Your task to perform on an android device: Add asus zenbook to the cart on bestbuy, then select checkout. Image 0: 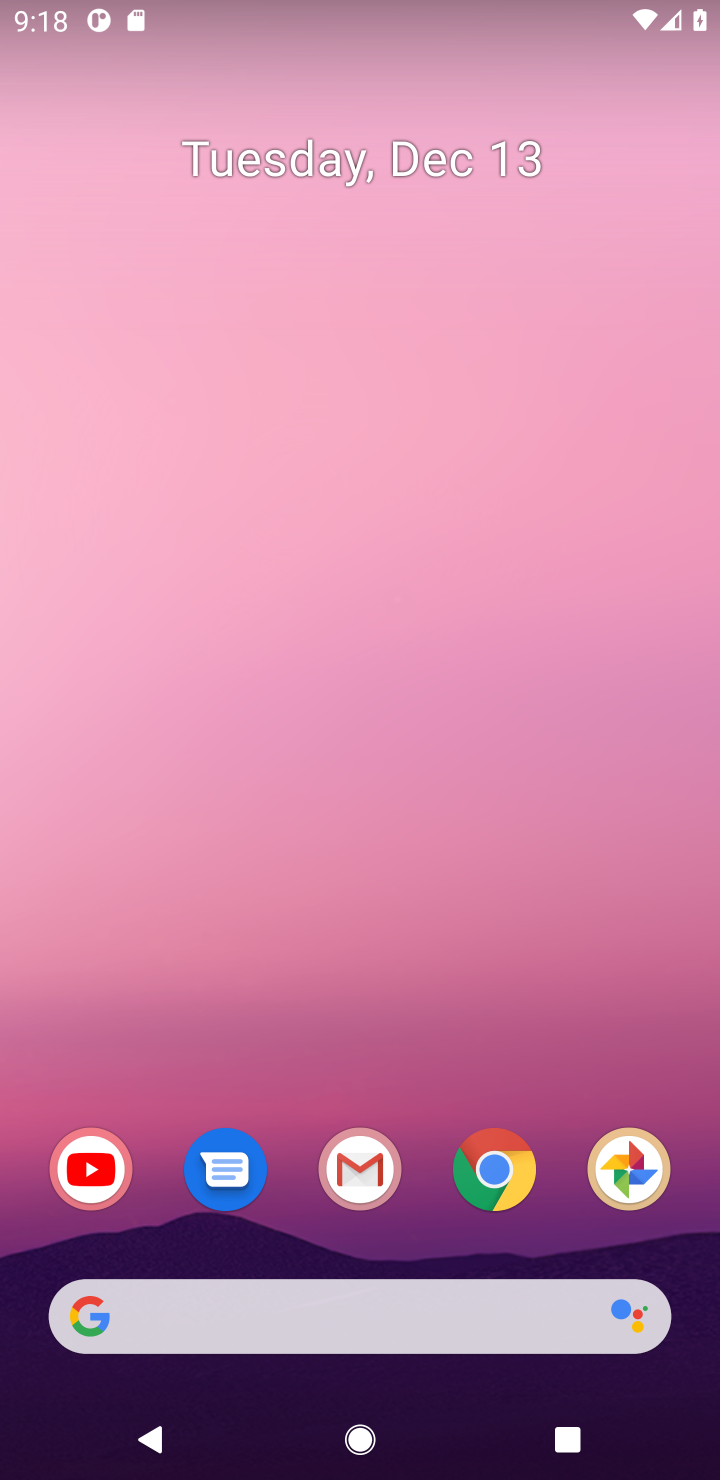
Step 0: click (487, 1196)
Your task to perform on an android device: Add asus zenbook to the cart on bestbuy, then select checkout. Image 1: 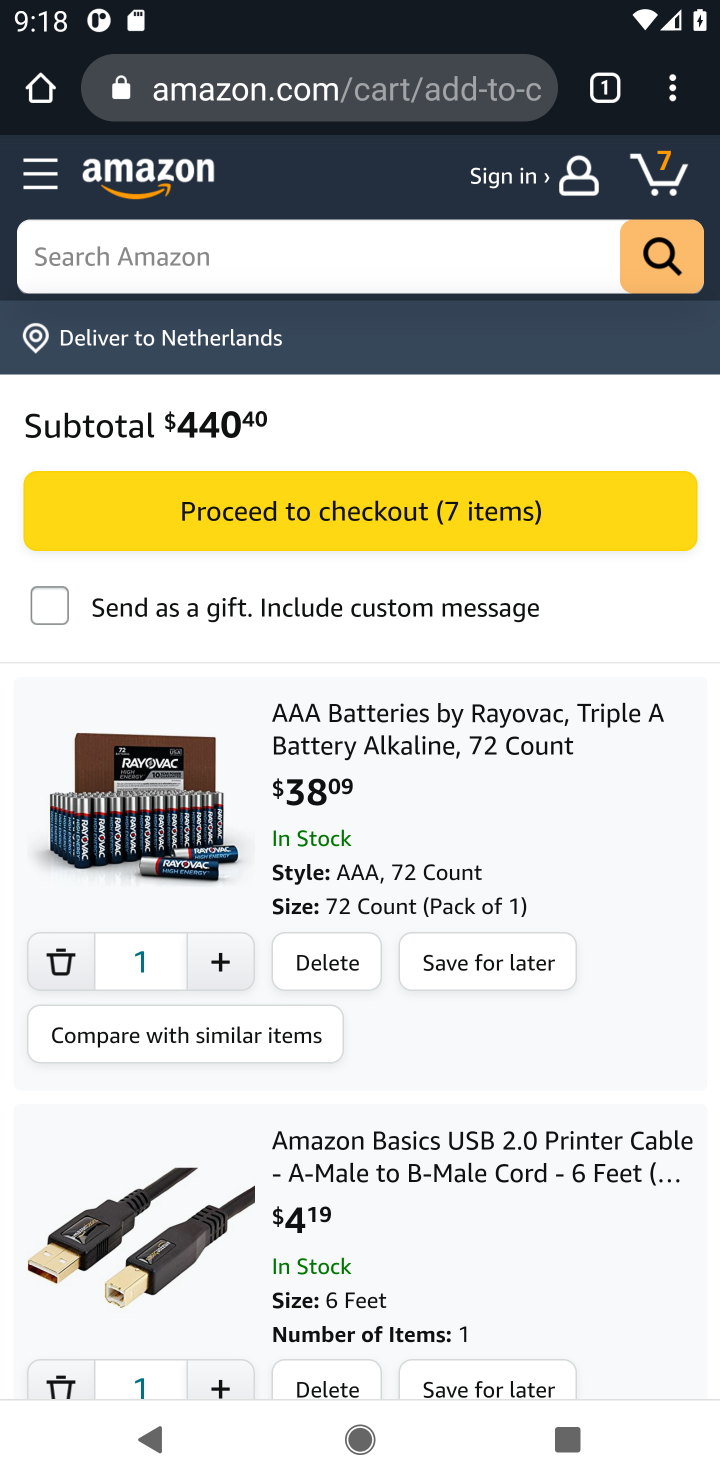
Step 1: click (260, 106)
Your task to perform on an android device: Add asus zenbook to the cart on bestbuy, then select checkout. Image 2: 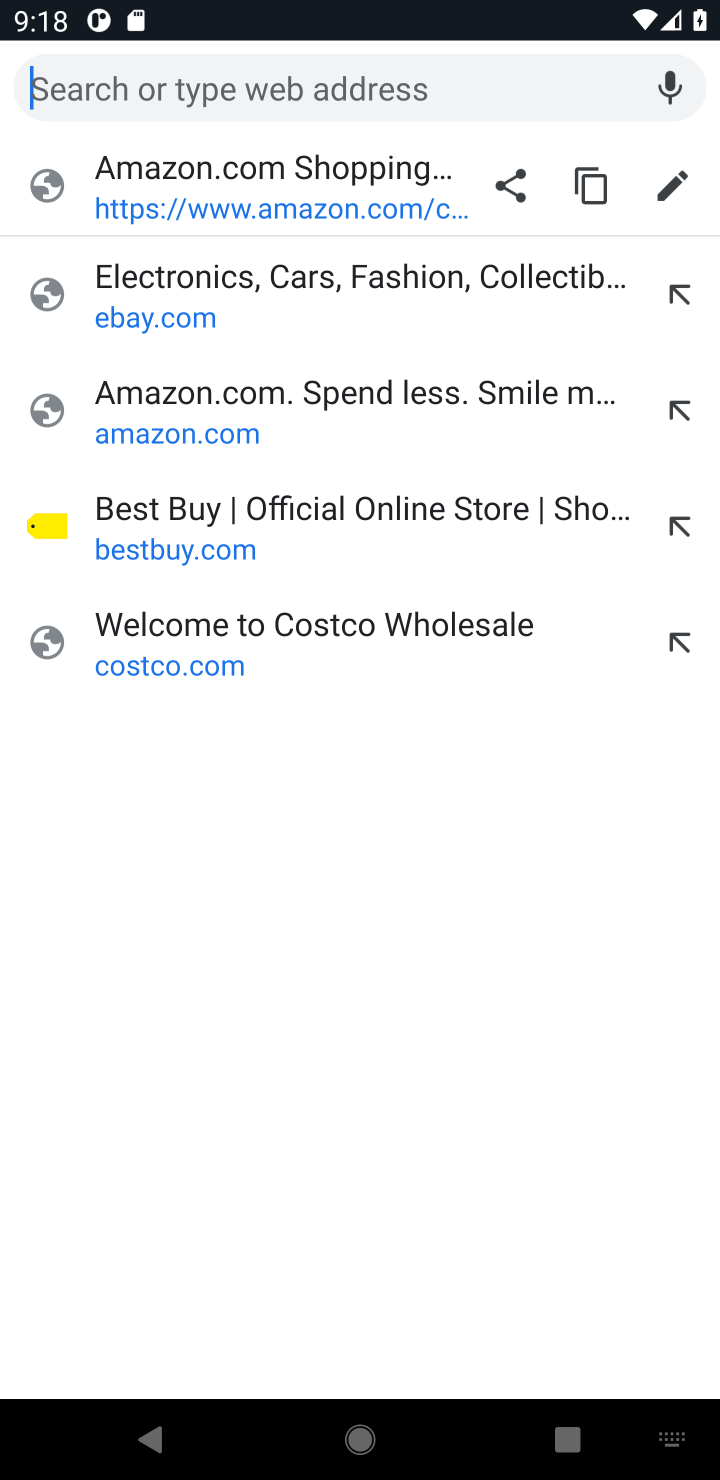
Step 2: click (450, 526)
Your task to perform on an android device: Add asus zenbook to the cart on bestbuy, then select checkout. Image 3: 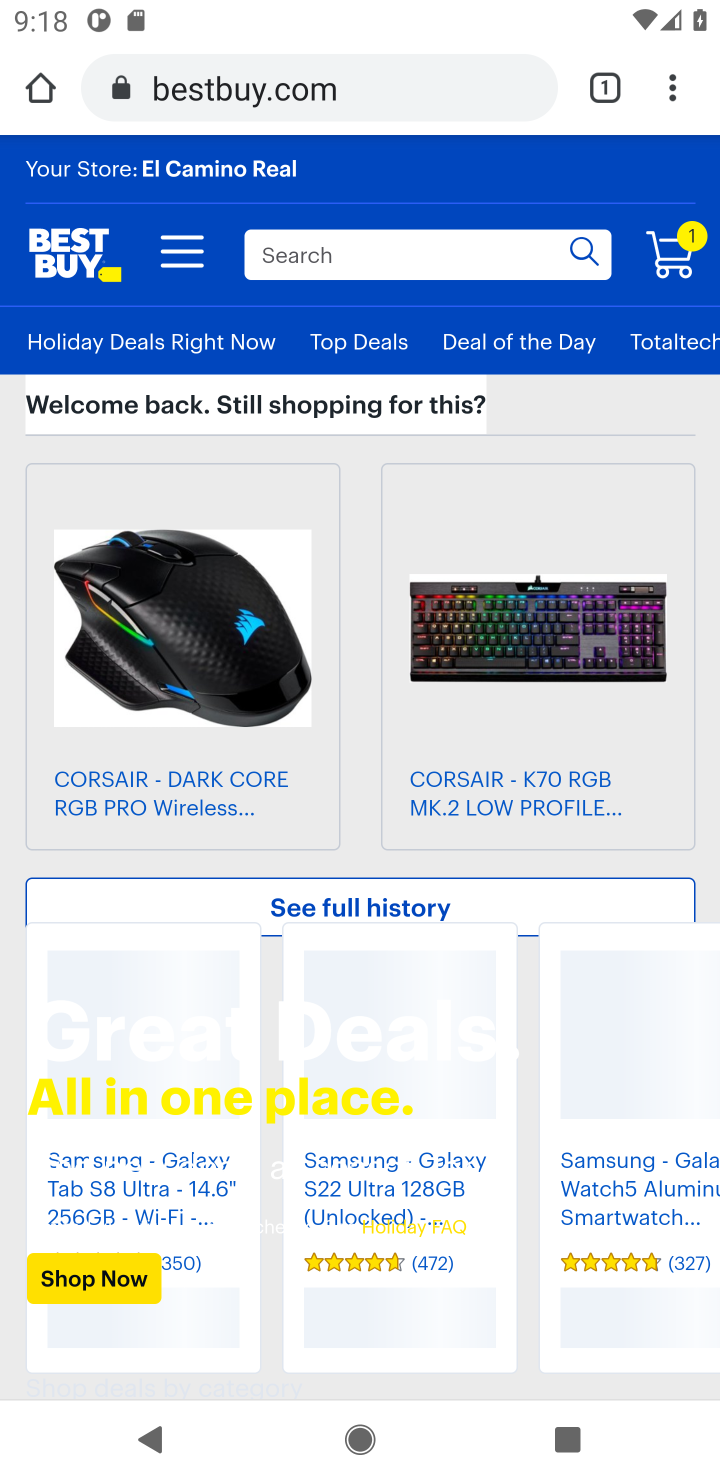
Step 3: click (343, 261)
Your task to perform on an android device: Add asus zenbook to the cart on bestbuy, then select checkout. Image 4: 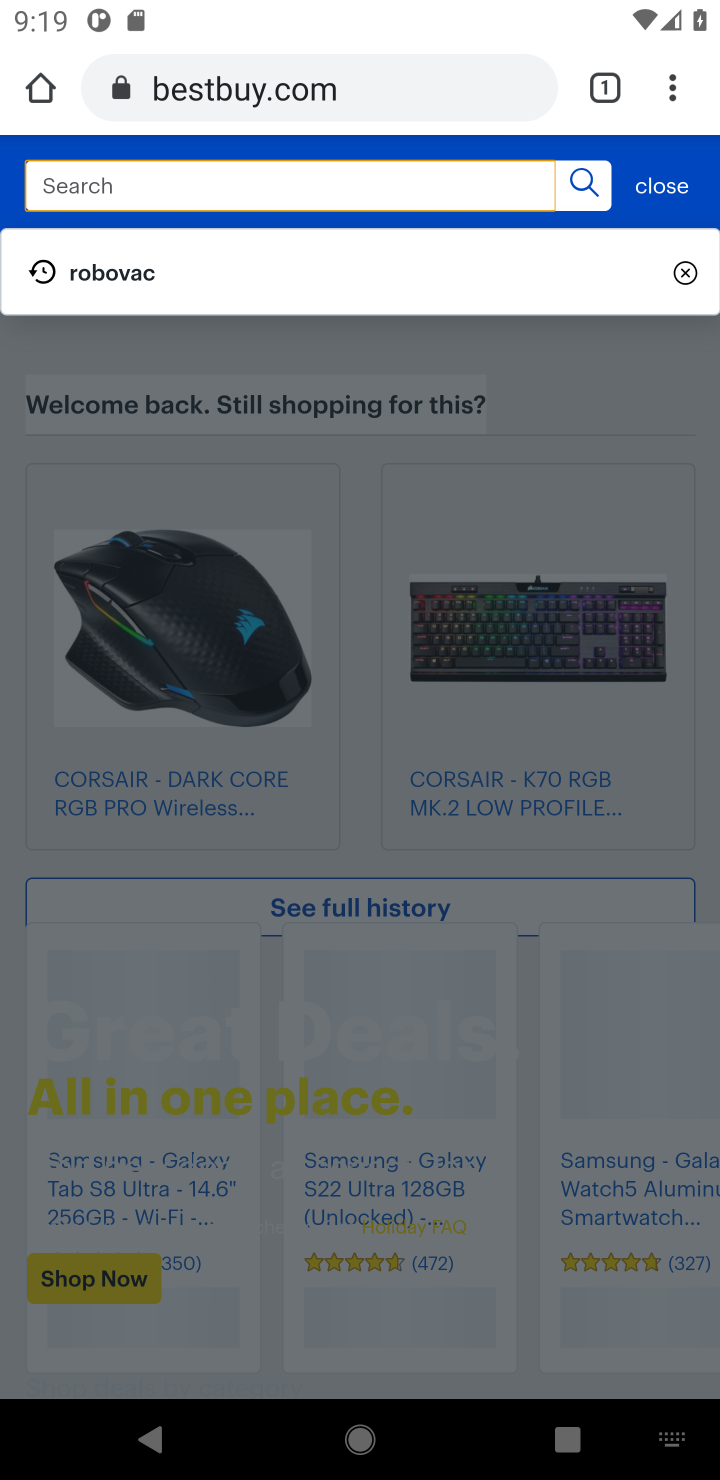
Step 4: type "asus zenbook"
Your task to perform on an android device: Add asus zenbook to the cart on bestbuy, then select checkout. Image 5: 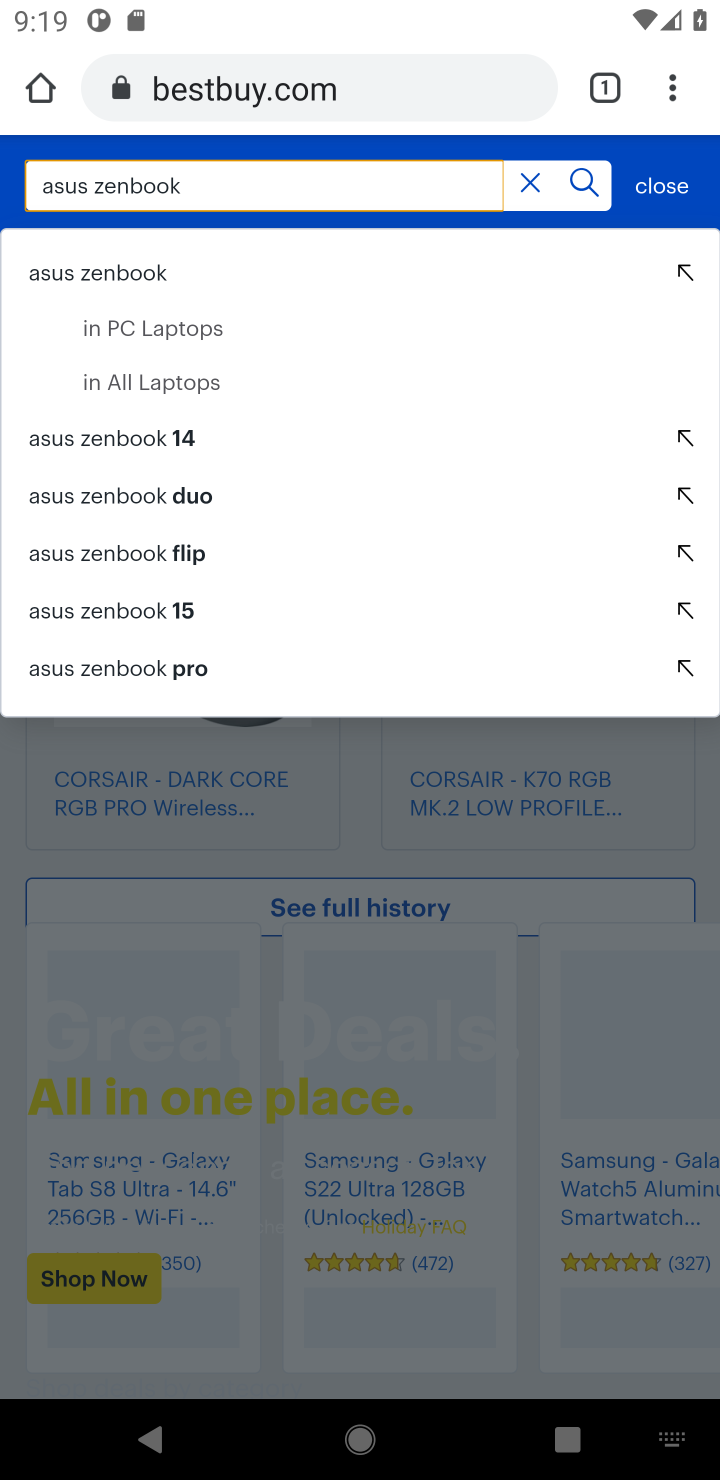
Step 5: click (144, 283)
Your task to perform on an android device: Add asus zenbook to the cart on bestbuy, then select checkout. Image 6: 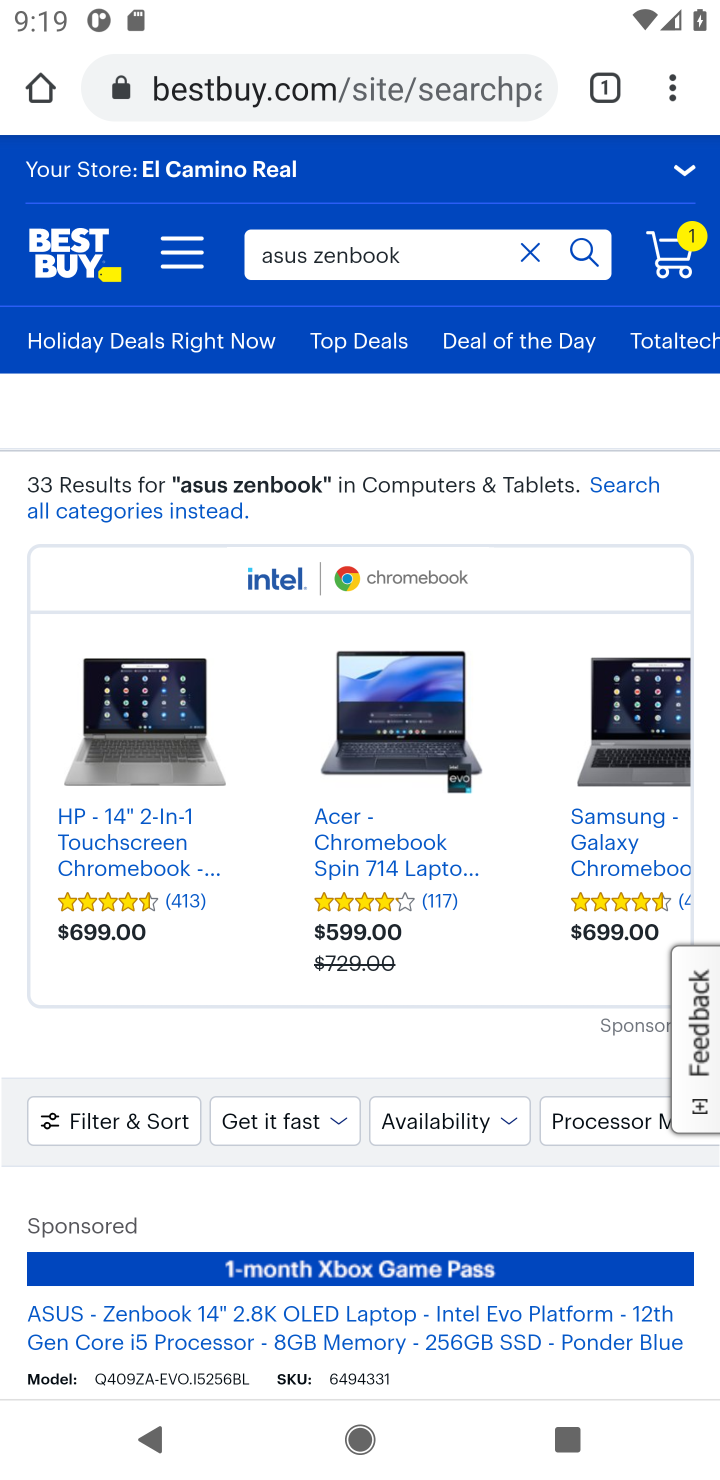
Step 6: task complete